Your task to perform on an android device: Open the calendar app, open the side menu, and click the "Day" option Image 0: 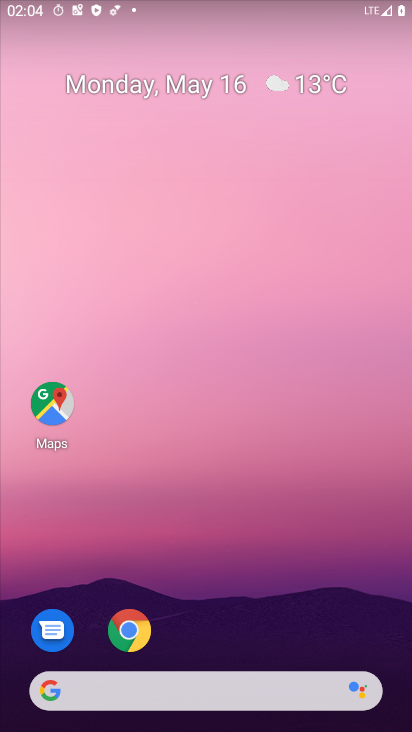
Step 0: drag from (339, 653) to (298, 176)
Your task to perform on an android device: Open the calendar app, open the side menu, and click the "Day" option Image 1: 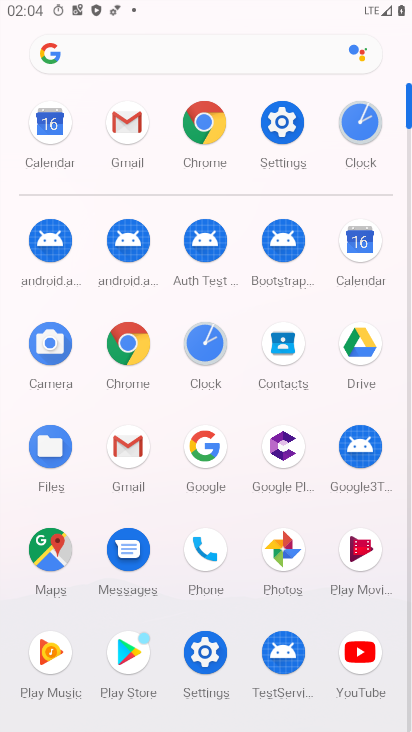
Step 1: click (370, 243)
Your task to perform on an android device: Open the calendar app, open the side menu, and click the "Day" option Image 2: 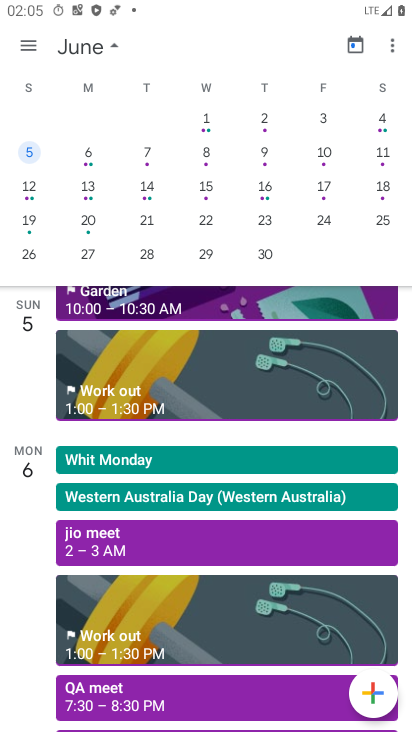
Step 2: click (20, 44)
Your task to perform on an android device: Open the calendar app, open the side menu, and click the "Day" option Image 3: 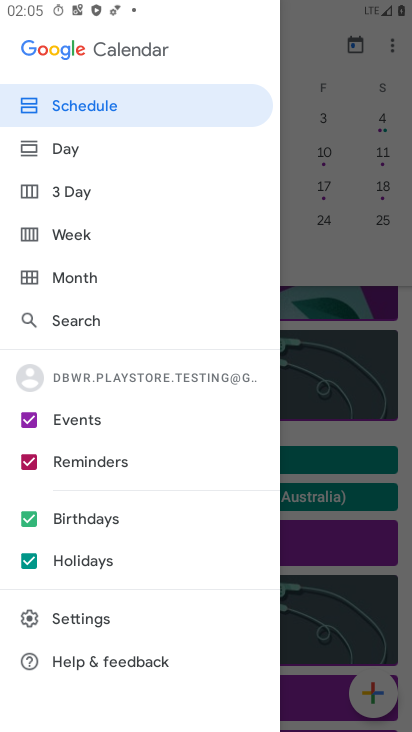
Step 3: click (122, 160)
Your task to perform on an android device: Open the calendar app, open the side menu, and click the "Day" option Image 4: 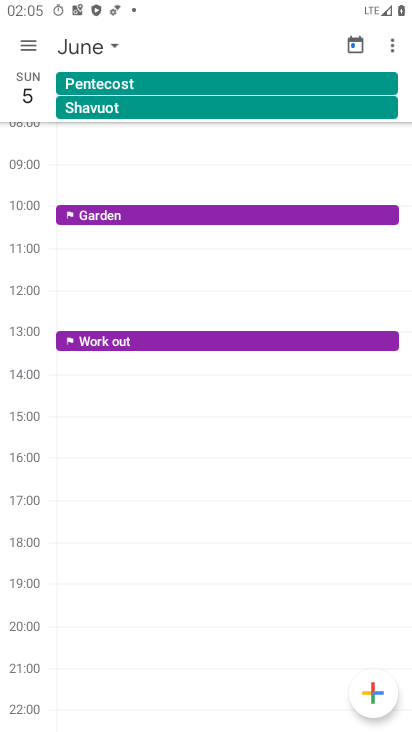
Step 4: task complete